Your task to perform on an android device: turn off notifications in google photos Image 0: 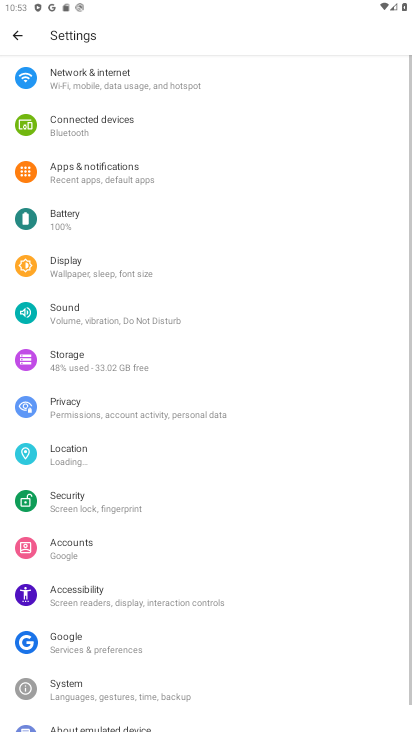
Step 0: press home button
Your task to perform on an android device: turn off notifications in google photos Image 1: 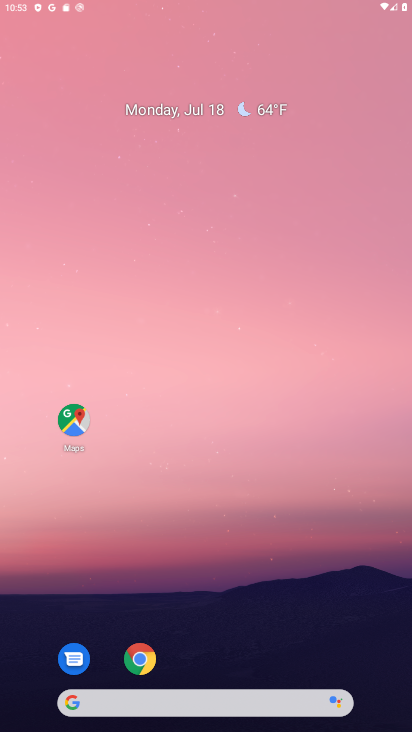
Step 1: drag from (297, 606) to (238, 99)
Your task to perform on an android device: turn off notifications in google photos Image 2: 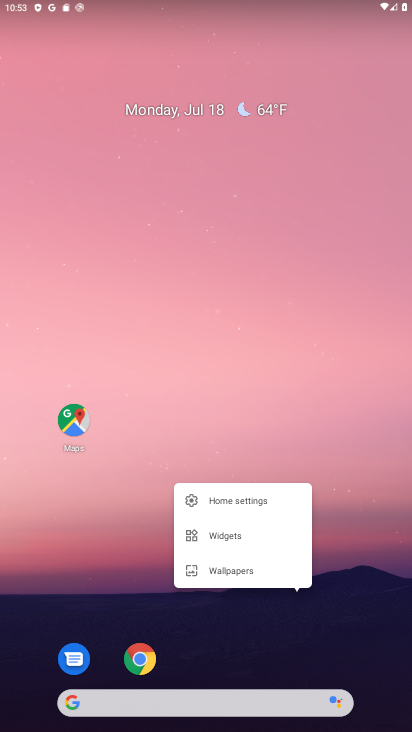
Step 2: click (248, 652)
Your task to perform on an android device: turn off notifications in google photos Image 3: 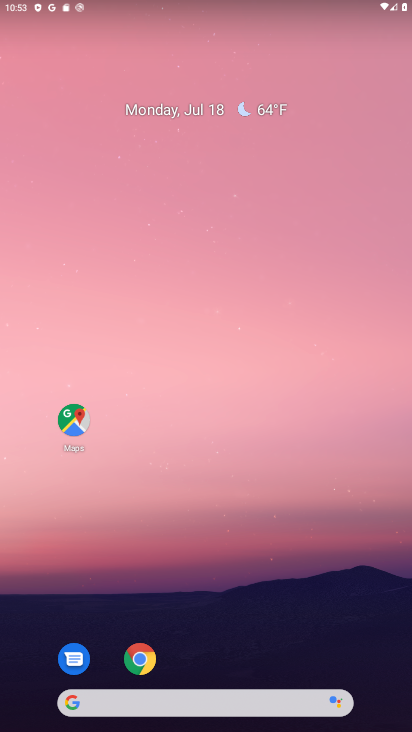
Step 3: drag from (241, 641) to (163, 128)
Your task to perform on an android device: turn off notifications in google photos Image 4: 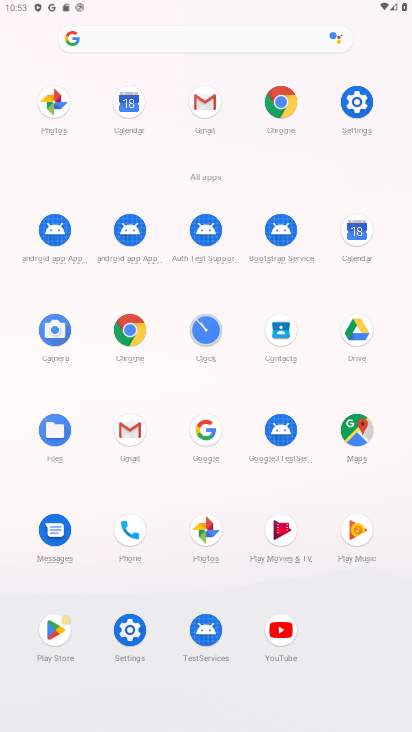
Step 4: click (209, 554)
Your task to perform on an android device: turn off notifications in google photos Image 5: 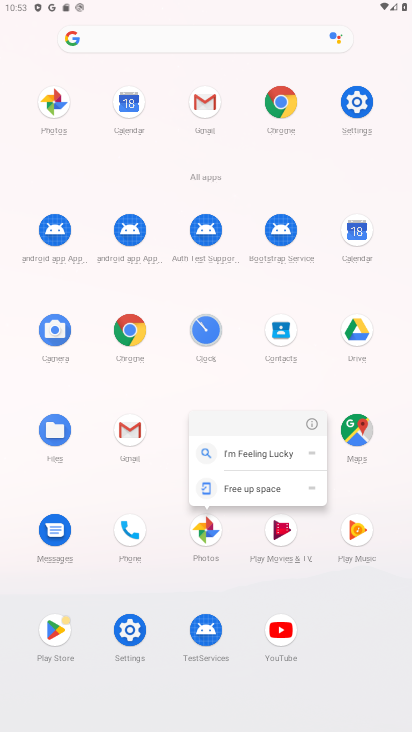
Step 5: click (297, 432)
Your task to perform on an android device: turn off notifications in google photos Image 6: 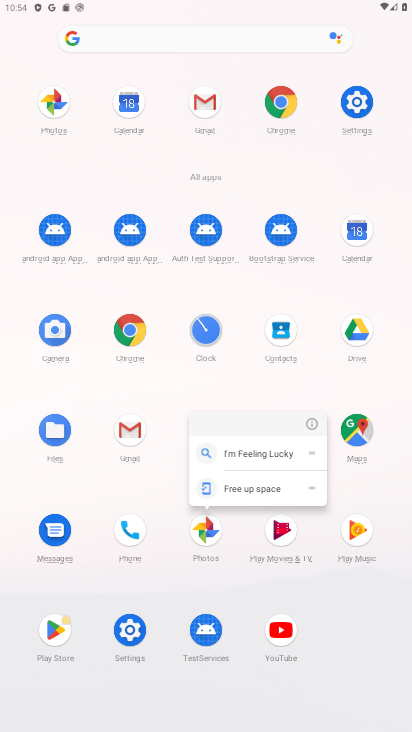
Step 6: click (310, 430)
Your task to perform on an android device: turn off notifications in google photos Image 7: 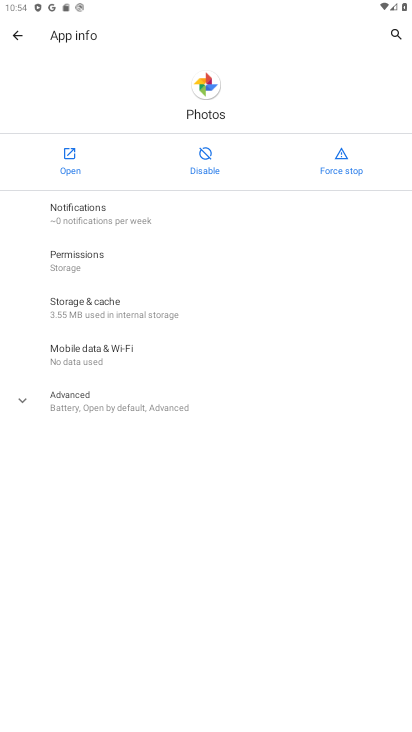
Step 7: click (93, 222)
Your task to perform on an android device: turn off notifications in google photos Image 8: 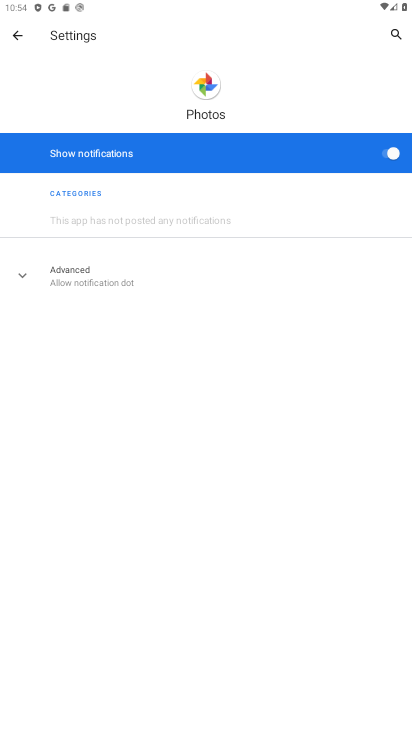
Step 8: click (178, 151)
Your task to perform on an android device: turn off notifications in google photos Image 9: 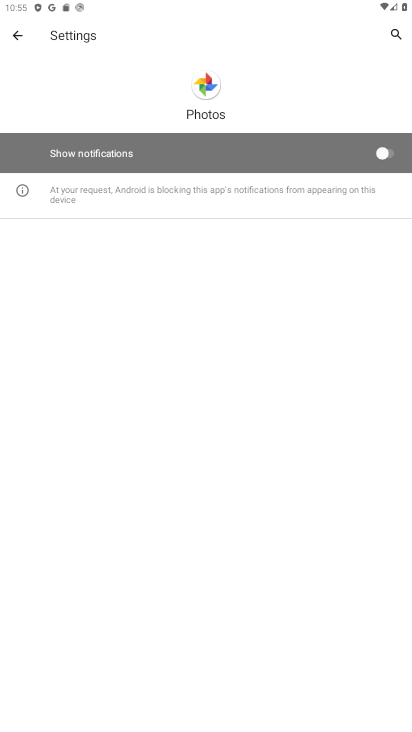
Step 9: task complete